Your task to perform on an android device: Open the Play Movies app and select the watchlist tab. Image 0: 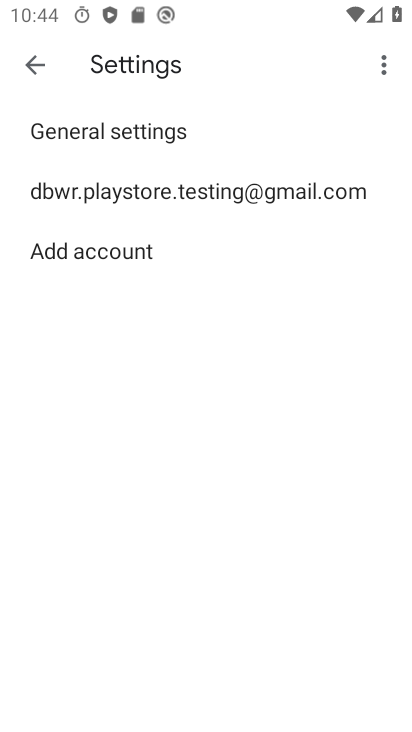
Step 0: click (37, 65)
Your task to perform on an android device: Open the Play Movies app and select the watchlist tab. Image 1: 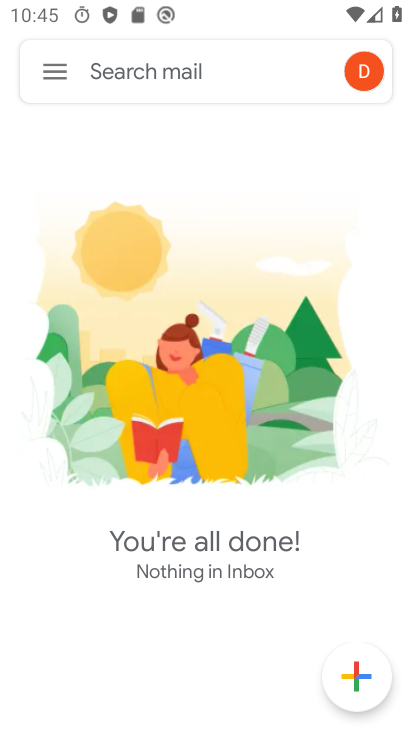
Step 1: press back button
Your task to perform on an android device: Open the Play Movies app and select the watchlist tab. Image 2: 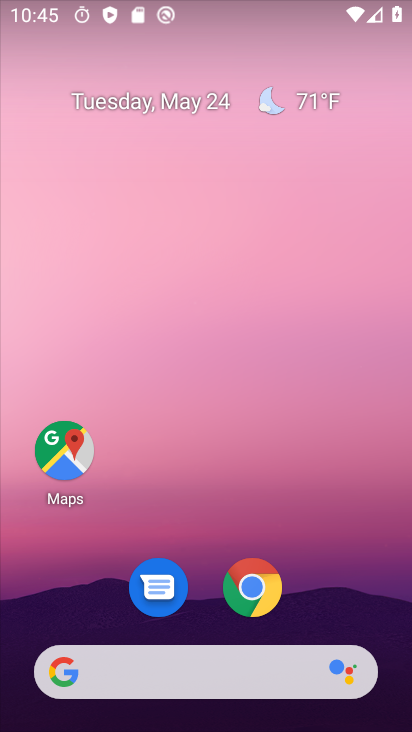
Step 2: click (234, 109)
Your task to perform on an android device: Open the Play Movies app and select the watchlist tab. Image 3: 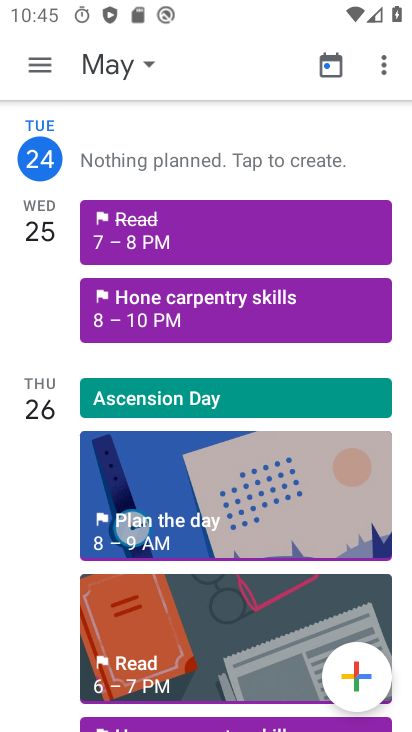
Step 3: drag from (191, 376) to (166, 146)
Your task to perform on an android device: Open the Play Movies app and select the watchlist tab. Image 4: 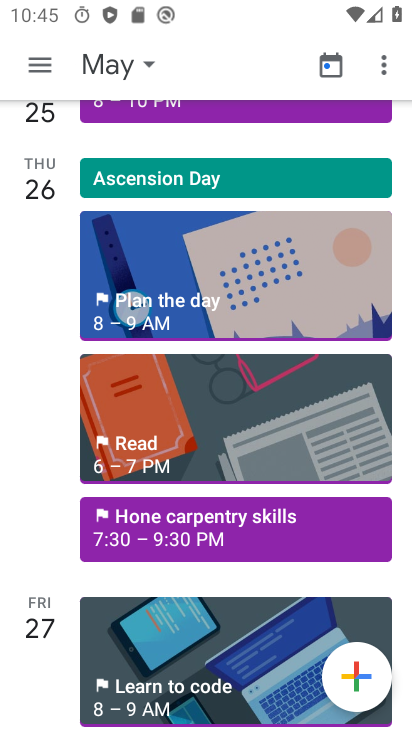
Step 4: drag from (230, 668) to (251, 34)
Your task to perform on an android device: Open the Play Movies app and select the watchlist tab. Image 5: 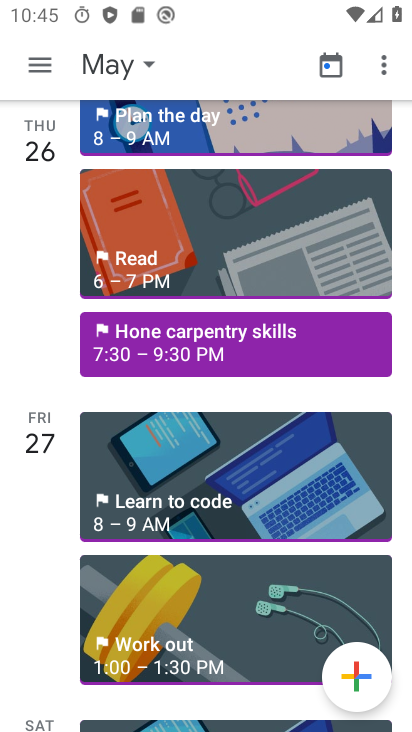
Step 5: press back button
Your task to perform on an android device: Open the Play Movies app and select the watchlist tab. Image 6: 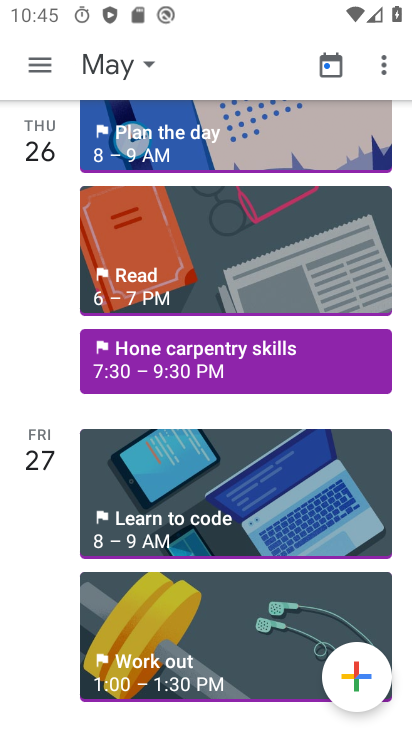
Step 6: press back button
Your task to perform on an android device: Open the Play Movies app and select the watchlist tab. Image 7: 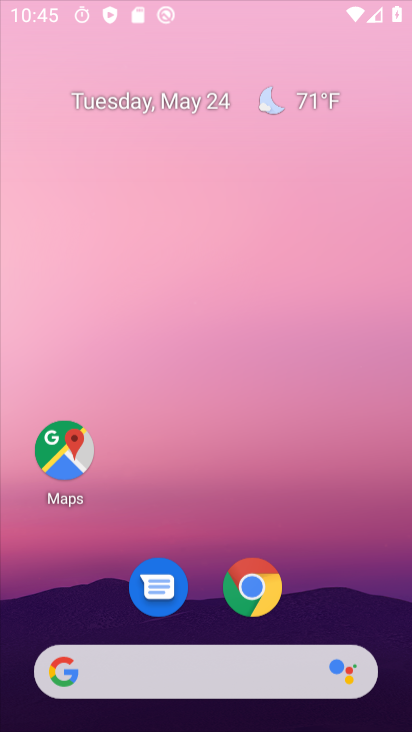
Step 7: press home button
Your task to perform on an android device: Open the Play Movies app and select the watchlist tab. Image 8: 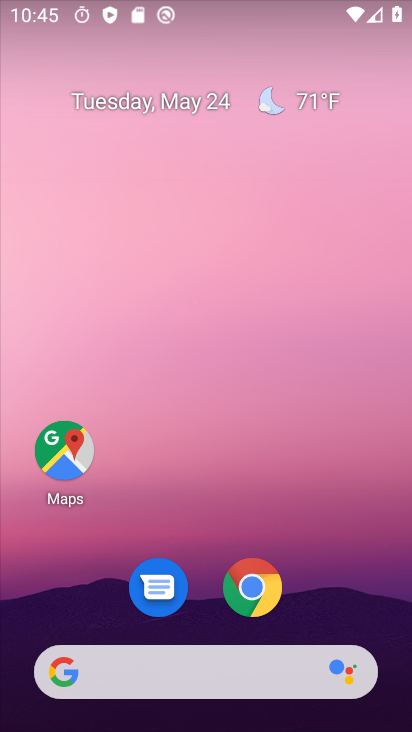
Step 8: press home button
Your task to perform on an android device: Open the Play Movies app and select the watchlist tab. Image 9: 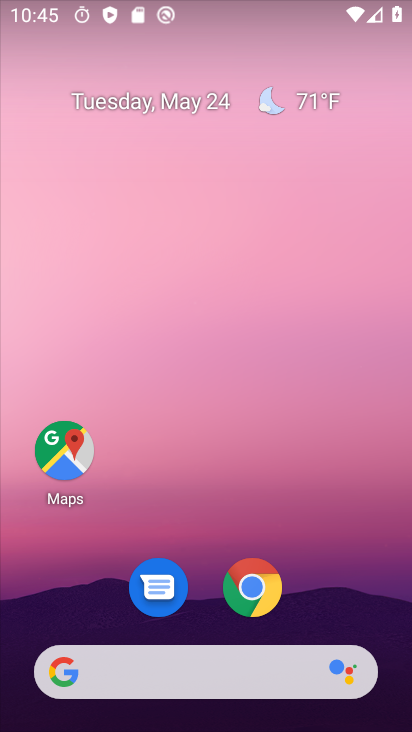
Step 9: drag from (280, 701) to (182, 4)
Your task to perform on an android device: Open the Play Movies app and select the watchlist tab. Image 10: 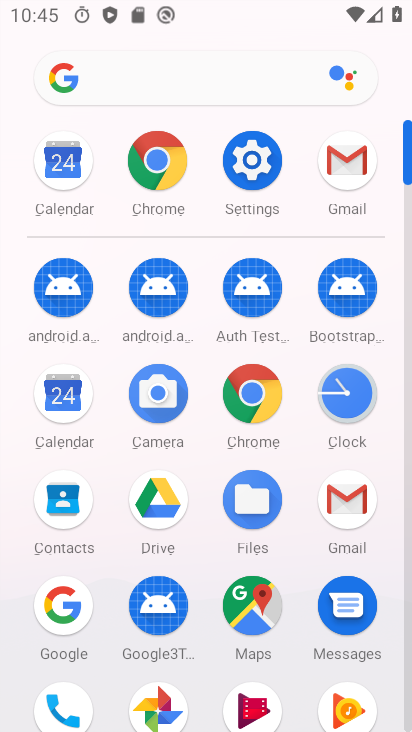
Step 10: drag from (279, 559) to (167, 119)
Your task to perform on an android device: Open the Play Movies app and select the watchlist tab. Image 11: 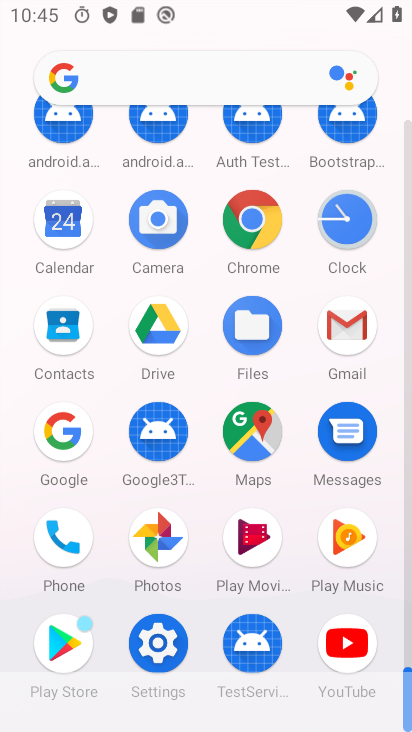
Step 11: drag from (262, 431) to (237, 177)
Your task to perform on an android device: Open the Play Movies app and select the watchlist tab. Image 12: 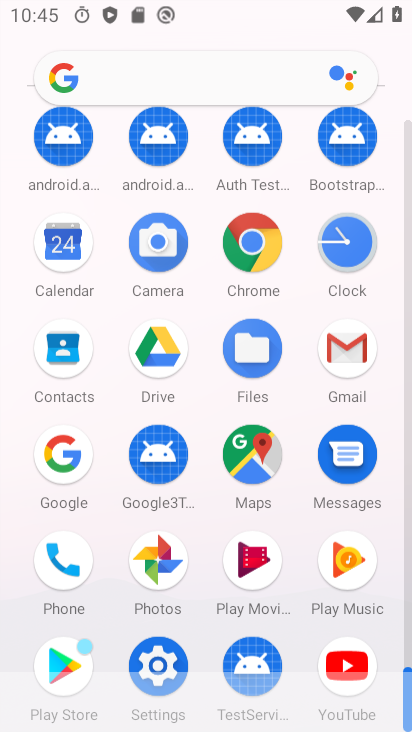
Step 12: drag from (261, 442) to (254, 161)
Your task to perform on an android device: Open the Play Movies app and select the watchlist tab. Image 13: 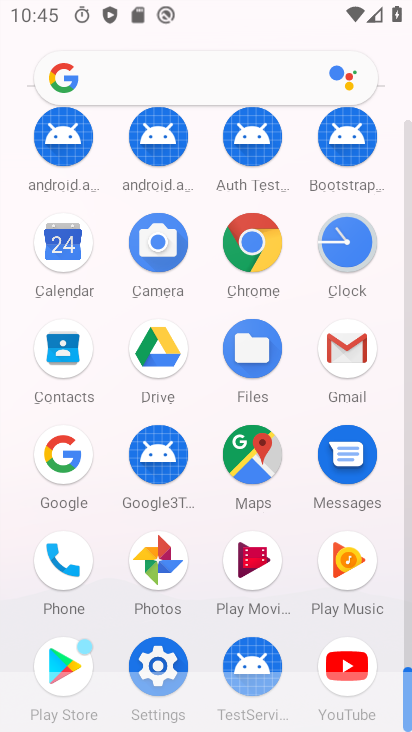
Step 13: click (248, 556)
Your task to perform on an android device: Open the Play Movies app and select the watchlist tab. Image 14: 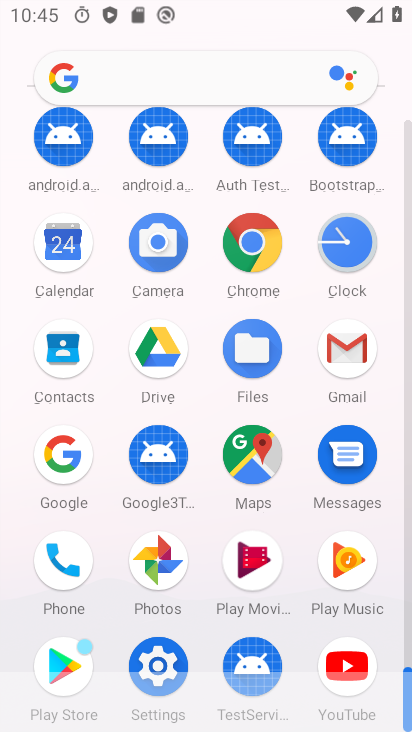
Step 14: click (251, 554)
Your task to perform on an android device: Open the Play Movies app and select the watchlist tab. Image 15: 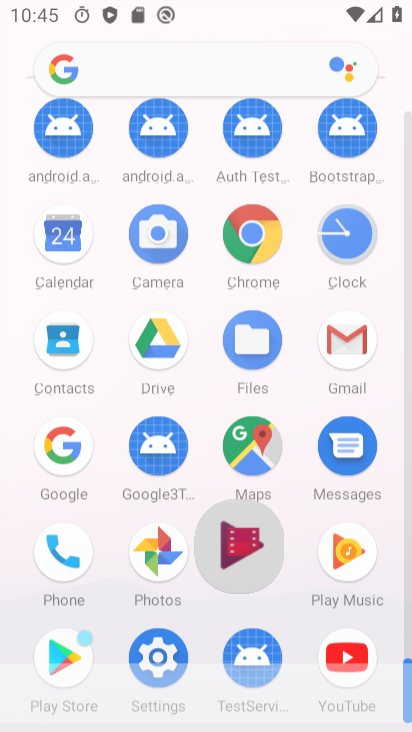
Step 15: click (251, 554)
Your task to perform on an android device: Open the Play Movies app and select the watchlist tab. Image 16: 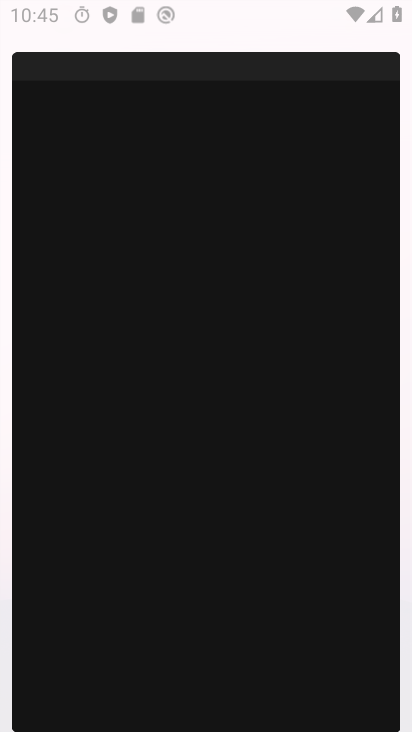
Step 16: click (252, 553)
Your task to perform on an android device: Open the Play Movies app and select the watchlist tab. Image 17: 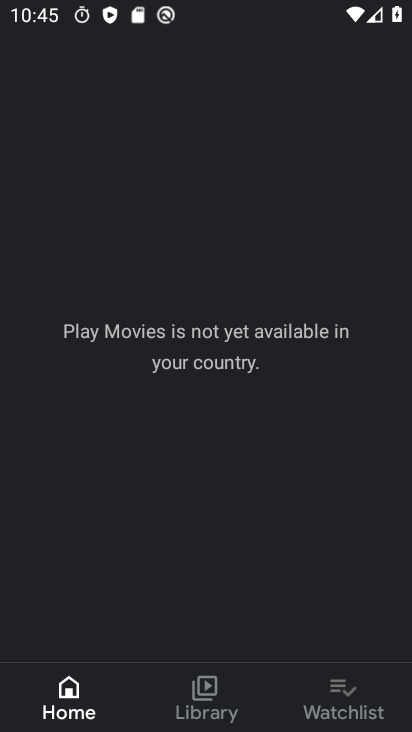
Step 17: click (339, 692)
Your task to perform on an android device: Open the Play Movies app and select the watchlist tab. Image 18: 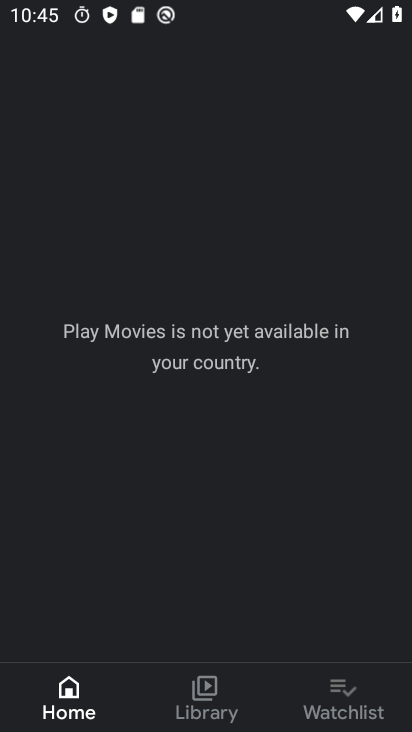
Step 18: click (345, 693)
Your task to perform on an android device: Open the Play Movies app and select the watchlist tab. Image 19: 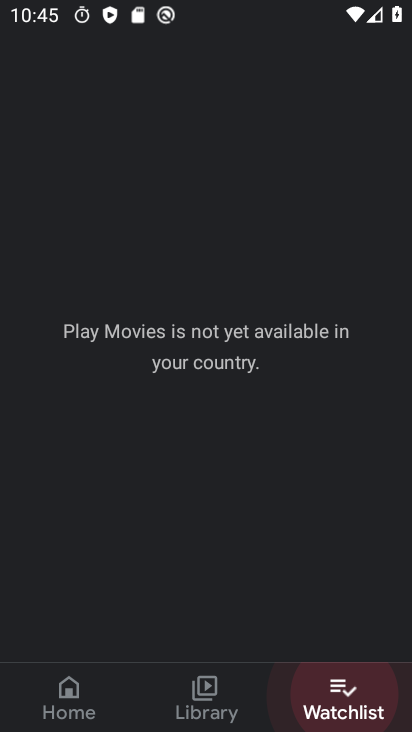
Step 19: click (349, 697)
Your task to perform on an android device: Open the Play Movies app and select the watchlist tab. Image 20: 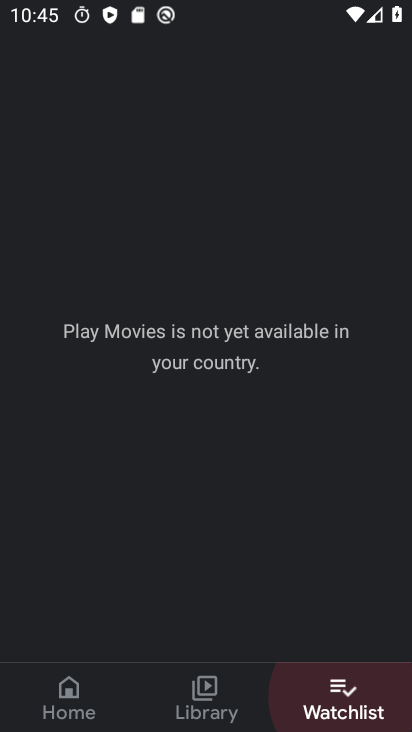
Step 20: click (348, 694)
Your task to perform on an android device: Open the Play Movies app and select the watchlist tab. Image 21: 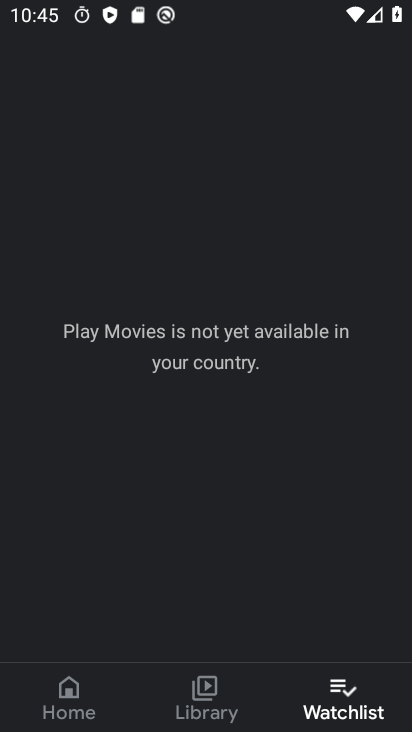
Step 21: task complete